Your task to perform on an android device: Open Youtube and go to the subscriptions tab Image 0: 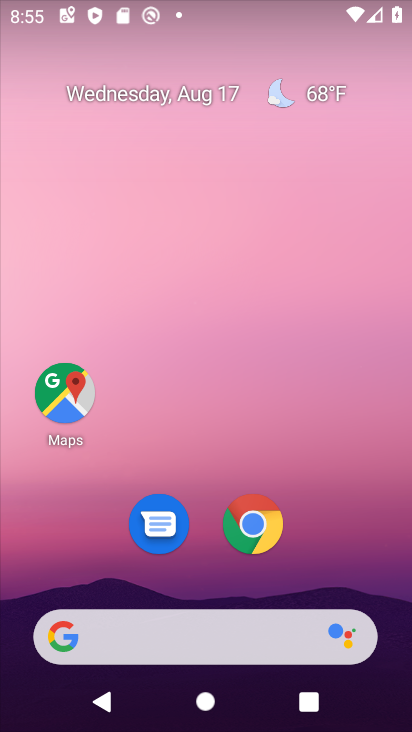
Step 0: drag from (204, 468) to (223, 1)
Your task to perform on an android device: Open Youtube and go to the subscriptions tab Image 1: 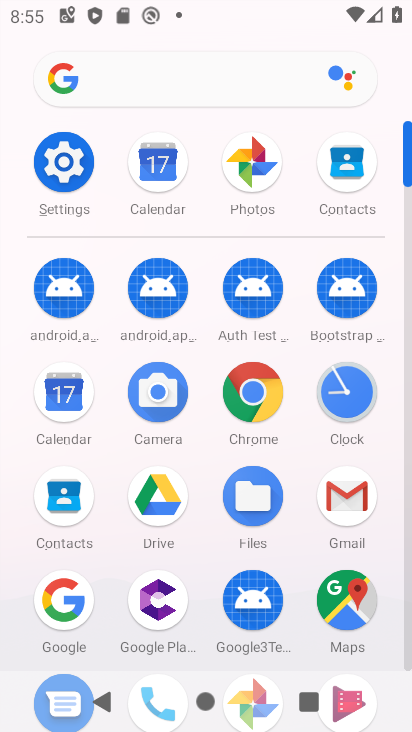
Step 1: drag from (307, 436) to (327, 103)
Your task to perform on an android device: Open Youtube and go to the subscriptions tab Image 2: 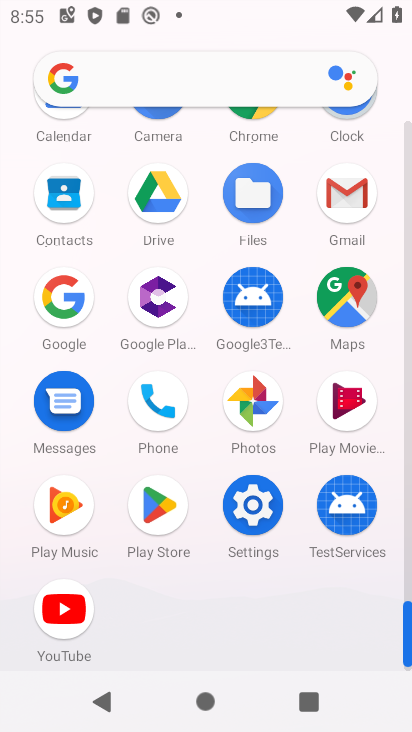
Step 2: click (74, 605)
Your task to perform on an android device: Open Youtube and go to the subscriptions tab Image 3: 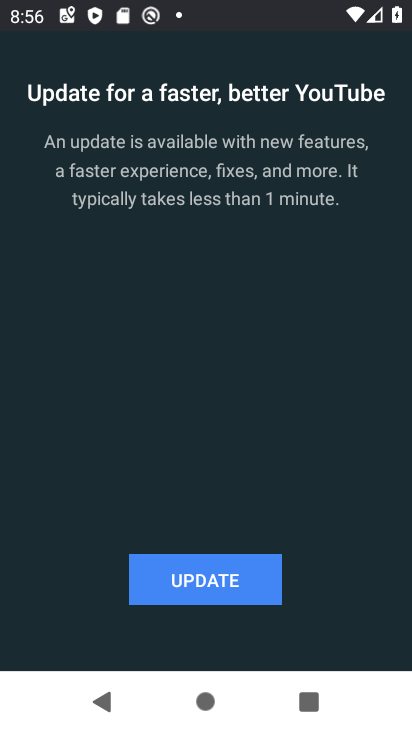
Step 3: click (253, 578)
Your task to perform on an android device: Open Youtube and go to the subscriptions tab Image 4: 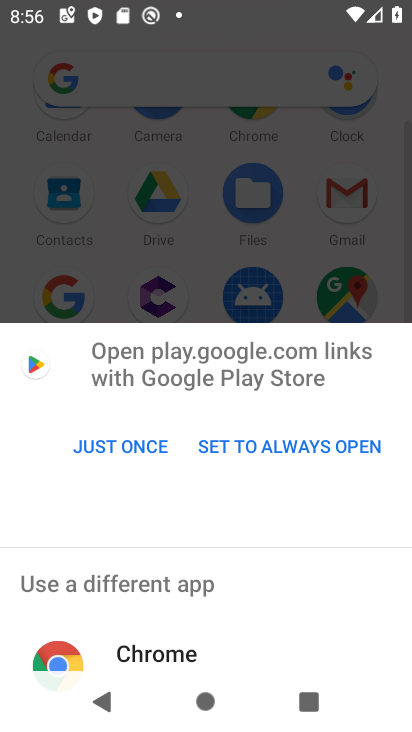
Step 4: click (146, 436)
Your task to perform on an android device: Open Youtube and go to the subscriptions tab Image 5: 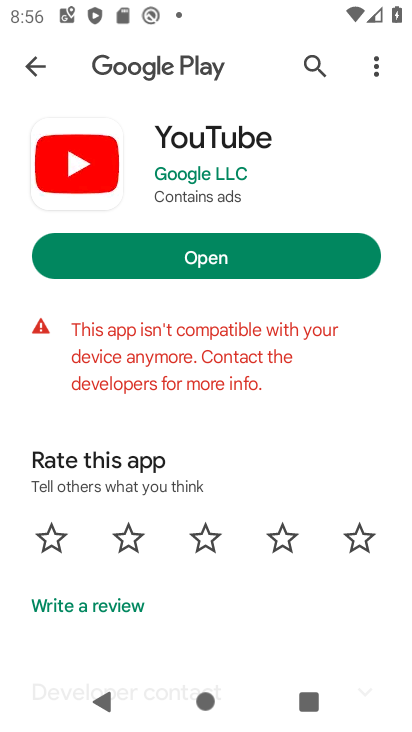
Step 5: click (309, 254)
Your task to perform on an android device: Open Youtube and go to the subscriptions tab Image 6: 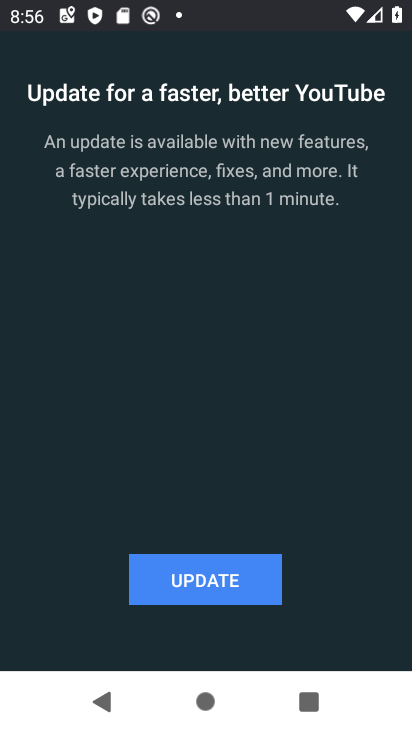
Step 6: task complete